Your task to perform on an android device: Open the map Image 0: 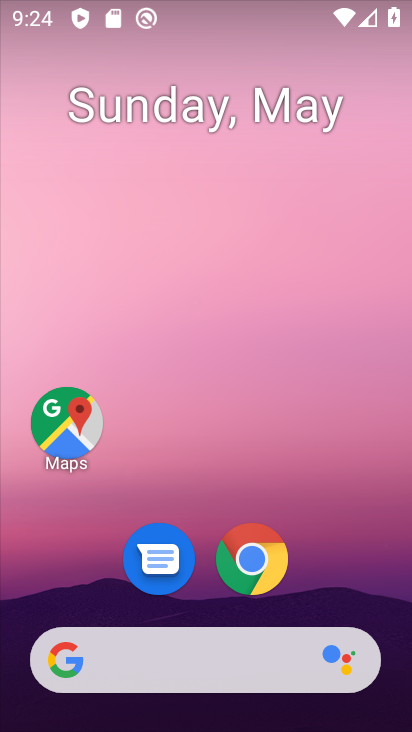
Step 0: press home button
Your task to perform on an android device: Open the map Image 1: 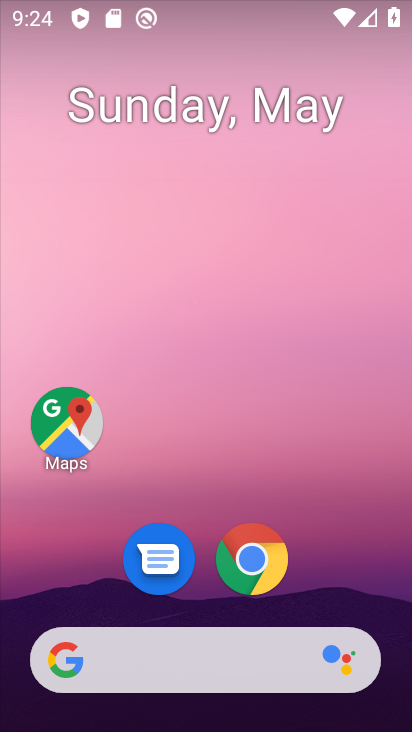
Step 1: click (71, 423)
Your task to perform on an android device: Open the map Image 2: 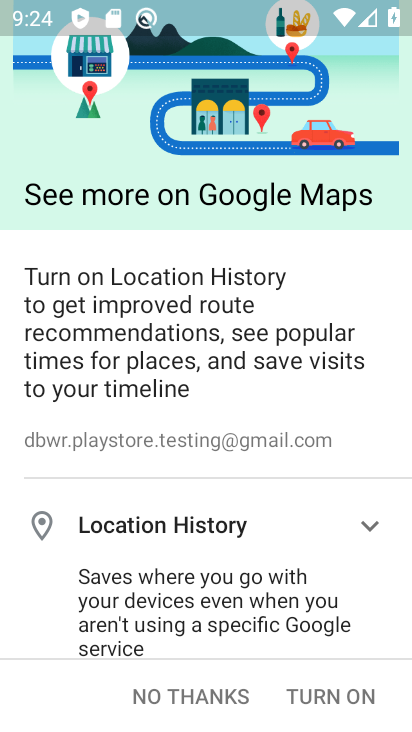
Step 2: click (326, 686)
Your task to perform on an android device: Open the map Image 3: 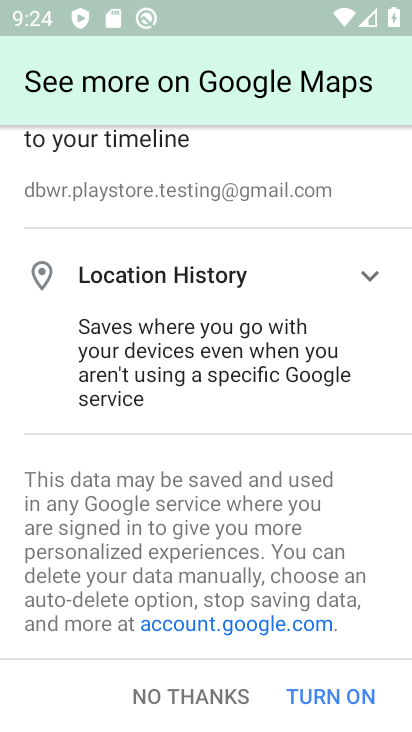
Step 3: click (225, 697)
Your task to perform on an android device: Open the map Image 4: 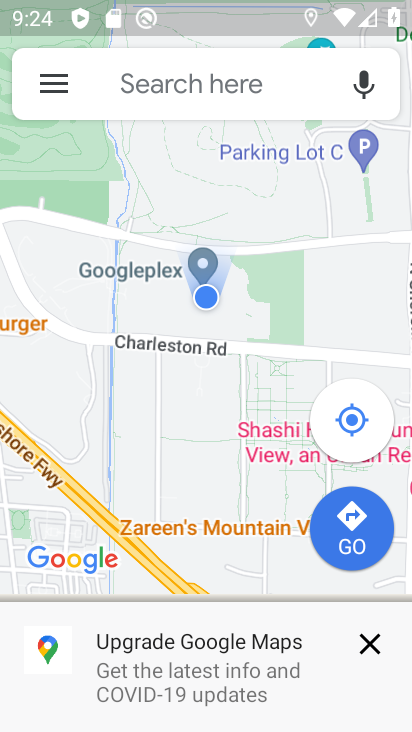
Step 4: task complete